Your task to perform on an android device: open a new tab in the chrome app Image 0: 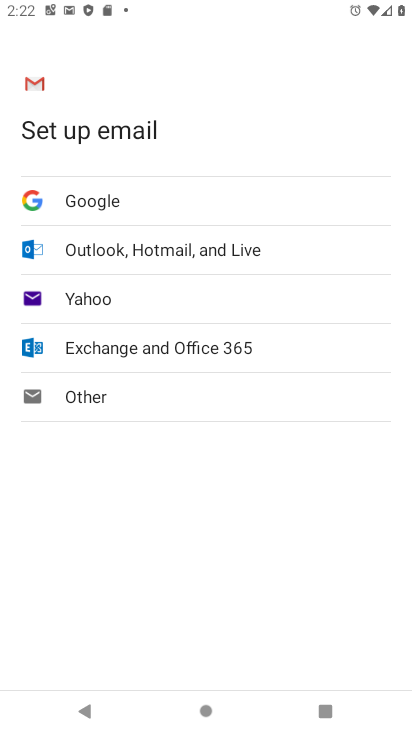
Step 0: press home button
Your task to perform on an android device: open a new tab in the chrome app Image 1: 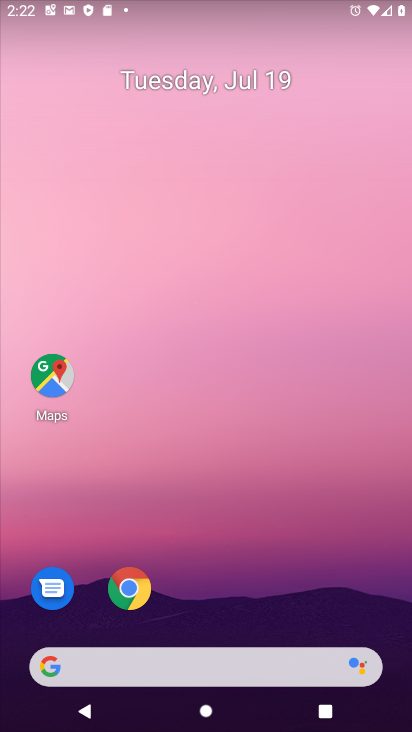
Step 1: drag from (387, 675) to (239, 41)
Your task to perform on an android device: open a new tab in the chrome app Image 2: 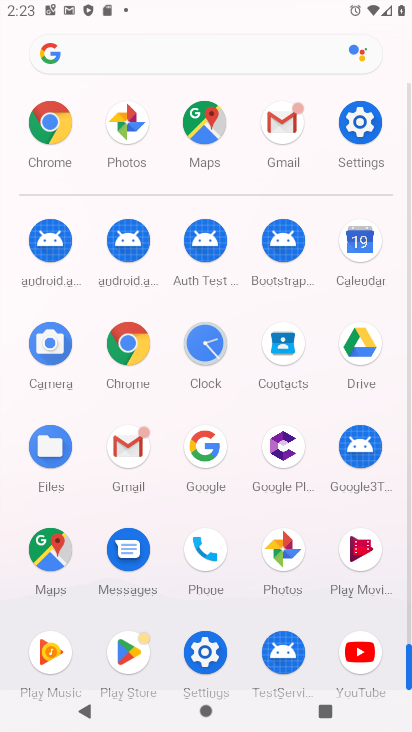
Step 2: click (136, 353)
Your task to perform on an android device: open a new tab in the chrome app Image 3: 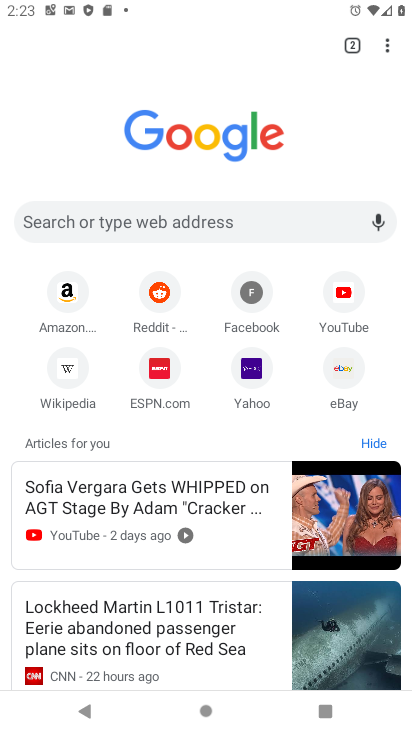
Step 3: click (388, 37)
Your task to perform on an android device: open a new tab in the chrome app Image 4: 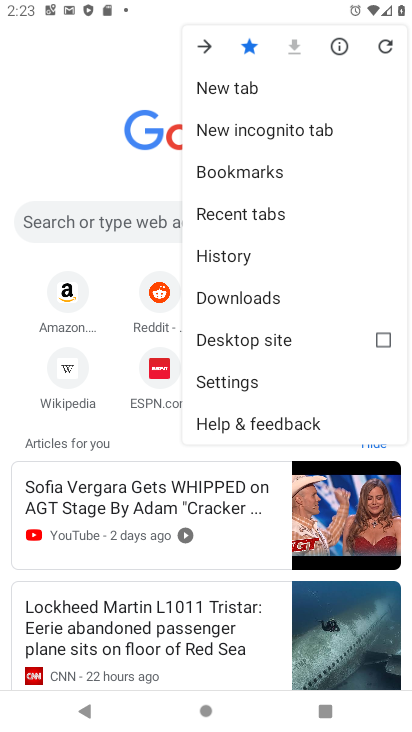
Step 4: click (299, 81)
Your task to perform on an android device: open a new tab in the chrome app Image 5: 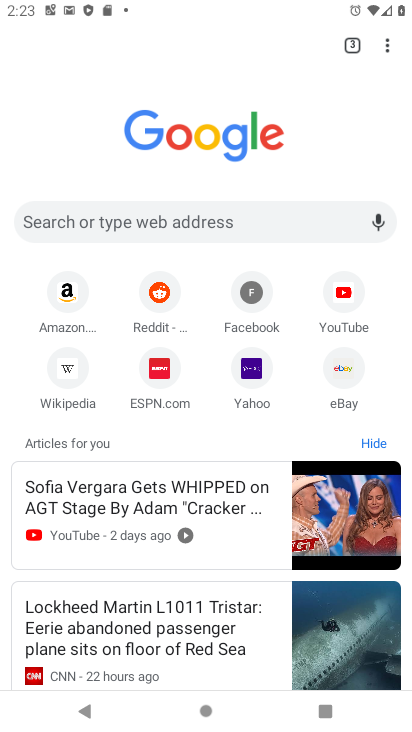
Step 5: task complete